Your task to perform on an android device: Show me the alarms in the clock app Image 0: 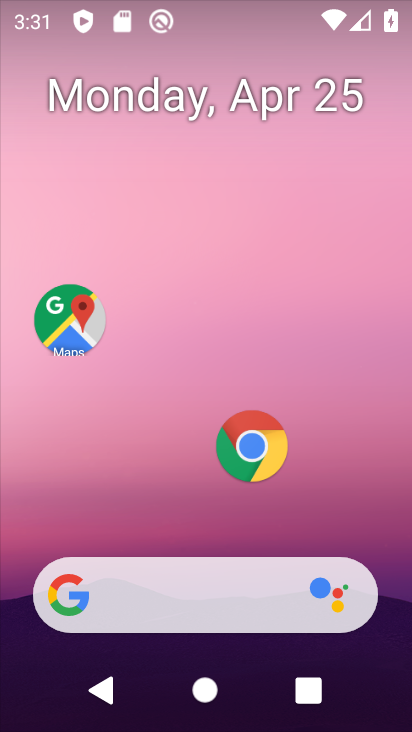
Step 0: drag from (166, 469) to (120, 255)
Your task to perform on an android device: Show me the alarms in the clock app Image 1: 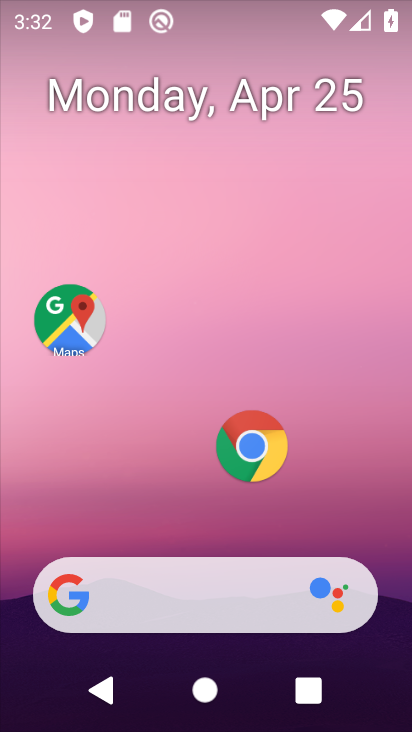
Step 1: drag from (138, 522) to (295, 65)
Your task to perform on an android device: Show me the alarms in the clock app Image 2: 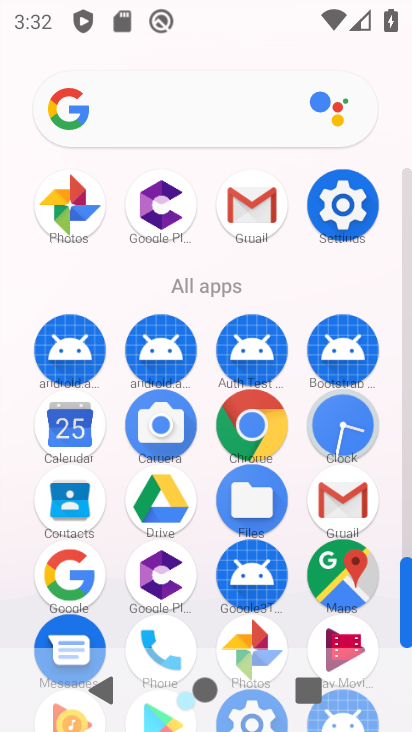
Step 2: click (355, 413)
Your task to perform on an android device: Show me the alarms in the clock app Image 3: 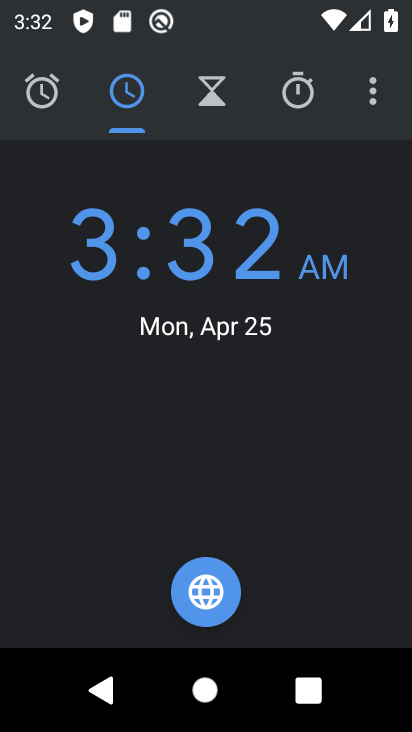
Step 3: click (26, 104)
Your task to perform on an android device: Show me the alarms in the clock app Image 4: 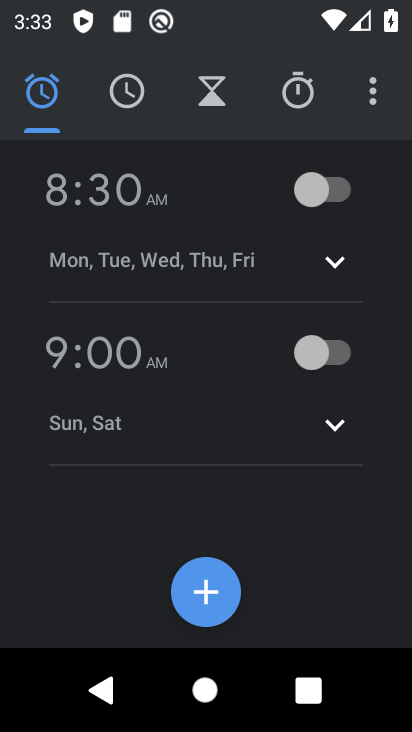
Step 4: task complete